Your task to perform on an android device: Open wifi settings Image 0: 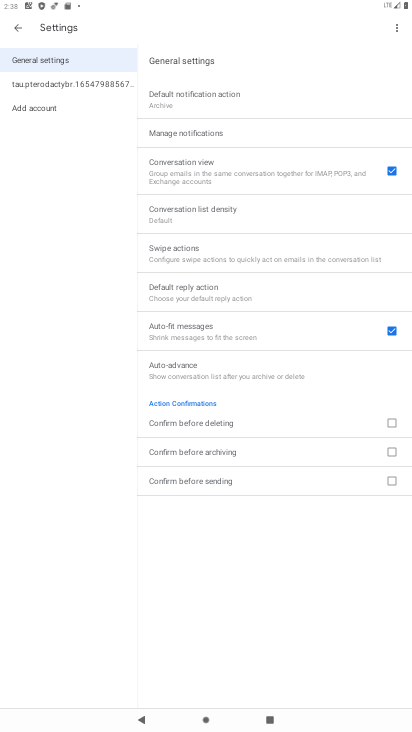
Step 0: press home button
Your task to perform on an android device: Open wifi settings Image 1: 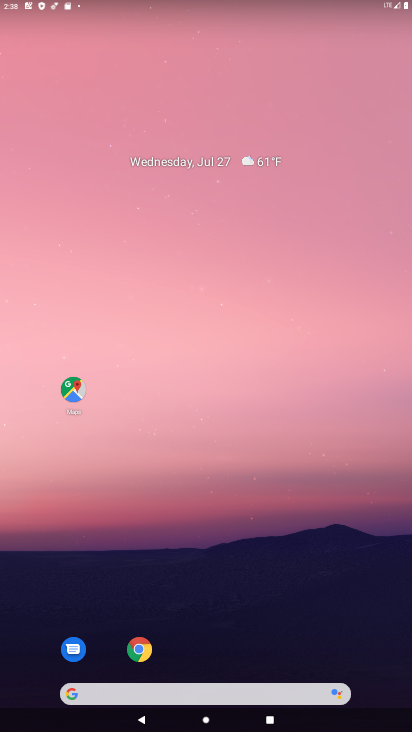
Step 1: drag from (165, 633) to (165, 157)
Your task to perform on an android device: Open wifi settings Image 2: 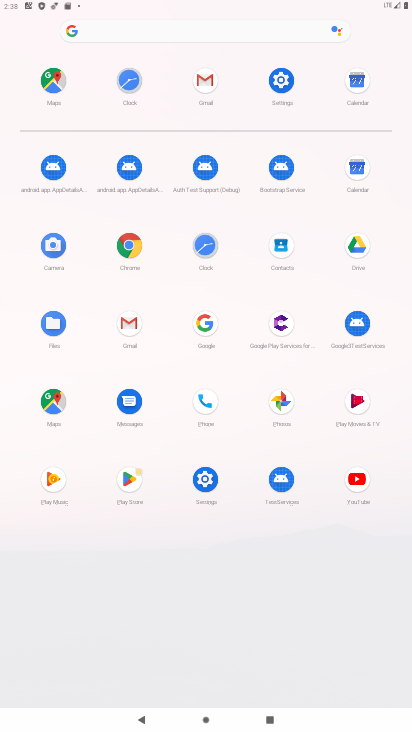
Step 2: click (269, 89)
Your task to perform on an android device: Open wifi settings Image 3: 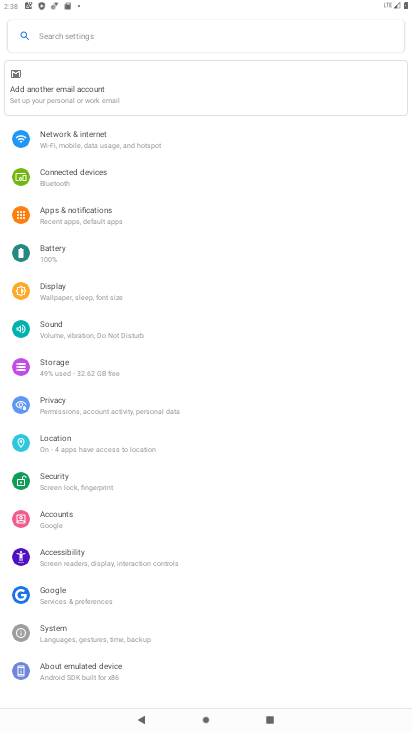
Step 3: click (74, 144)
Your task to perform on an android device: Open wifi settings Image 4: 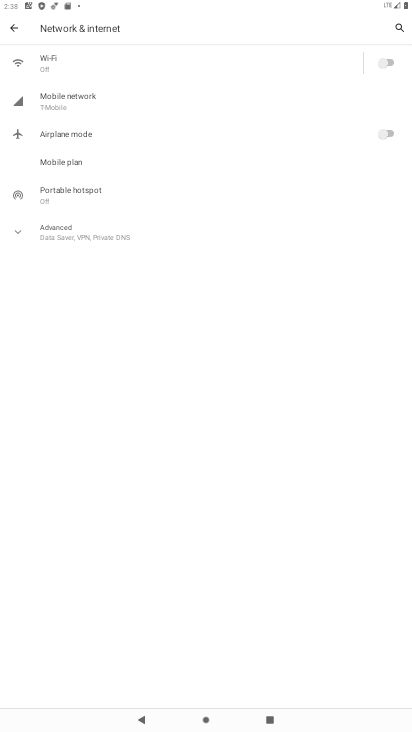
Step 4: click (252, 67)
Your task to perform on an android device: Open wifi settings Image 5: 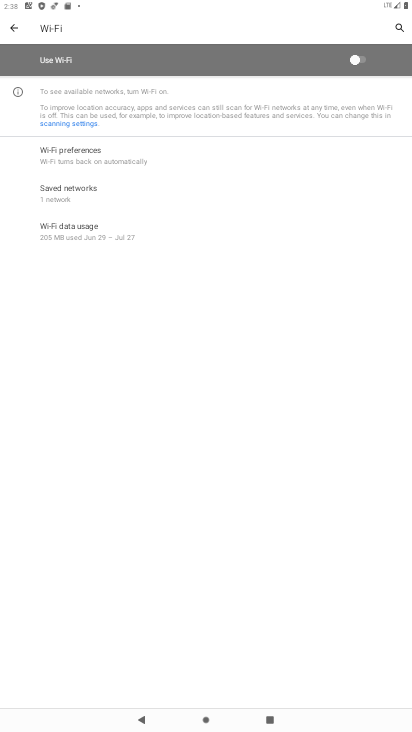
Step 5: task complete